Your task to perform on an android device: Turn off the flashlight Image 0: 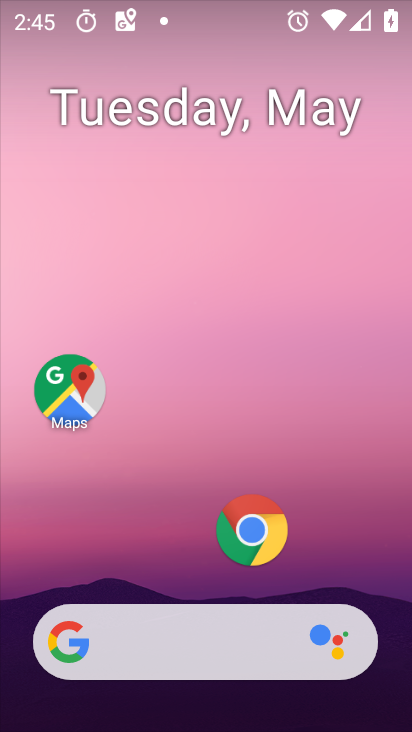
Step 0: drag from (209, 592) to (205, 1)
Your task to perform on an android device: Turn off the flashlight Image 1: 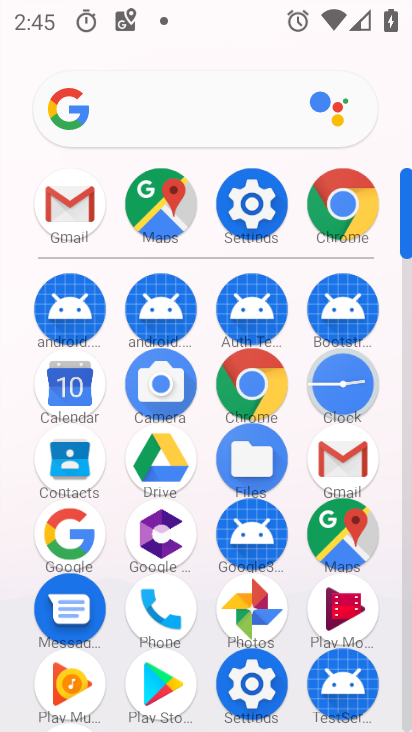
Step 1: click (247, 191)
Your task to perform on an android device: Turn off the flashlight Image 2: 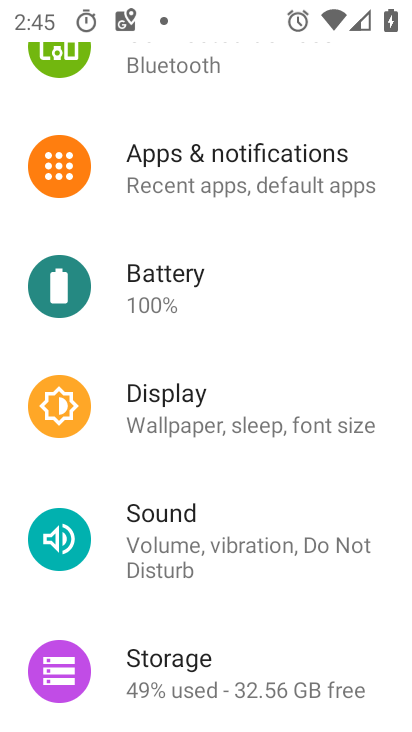
Step 2: drag from (236, 101) to (154, 698)
Your task to perform on an android device: Turn off the flashlight Image 3: 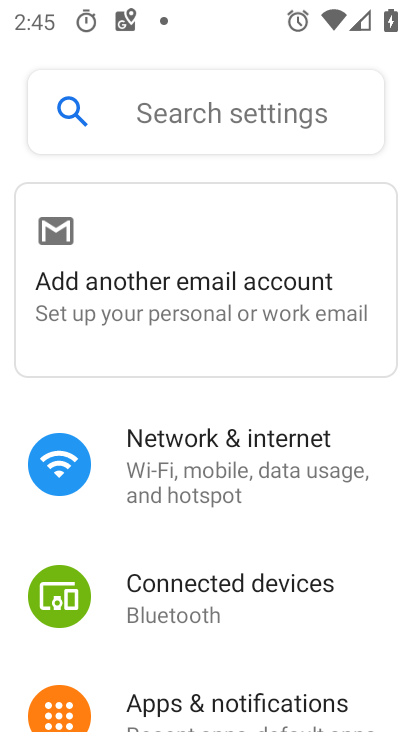
Step 3: click (183, 135)
Your task to perform on an android device: Turn off the flashlight Image 4: 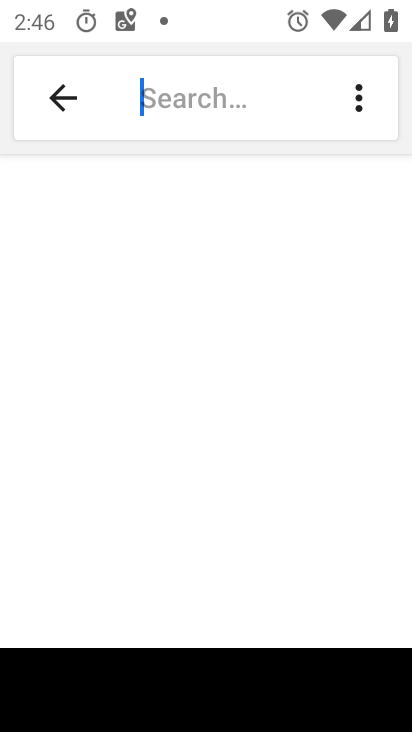
Step 4: type "flashlight"
Your task to perform on an android device: Turn off the flashlight Image 5: 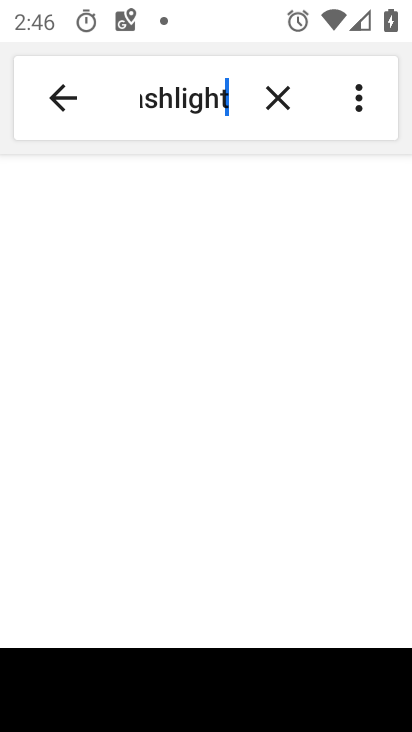
Step 5: type ""
Your task to perform on an android device: Turn off the flashlight Image 6: 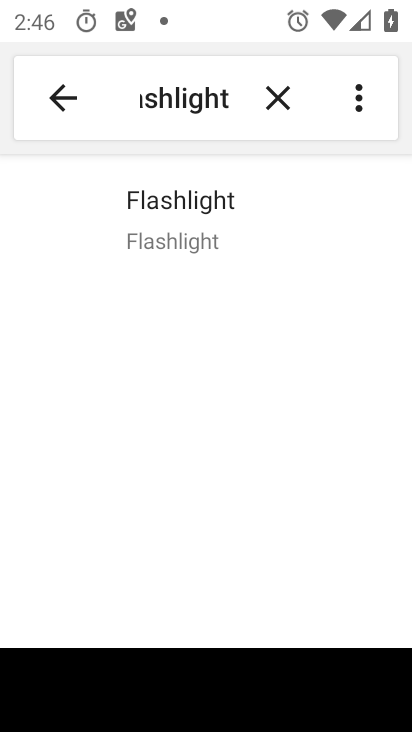
Step 6: click (151, 201)
Your task to perform on an android device: Turn off the flashlight Image 7: 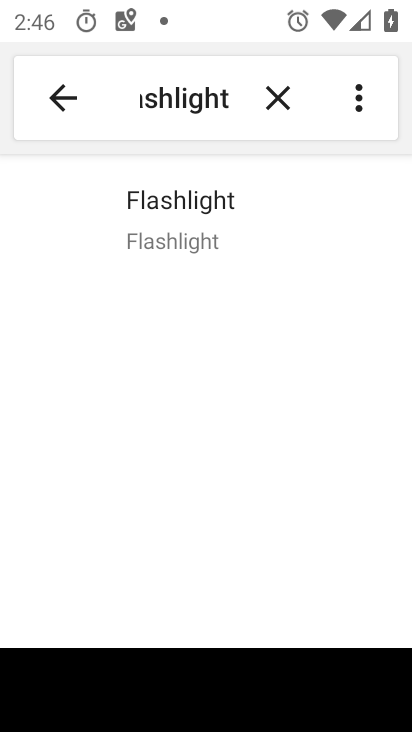
Step 7: task complete